Your task to perform on an android device: change notification settings in the gmail app Image 0: 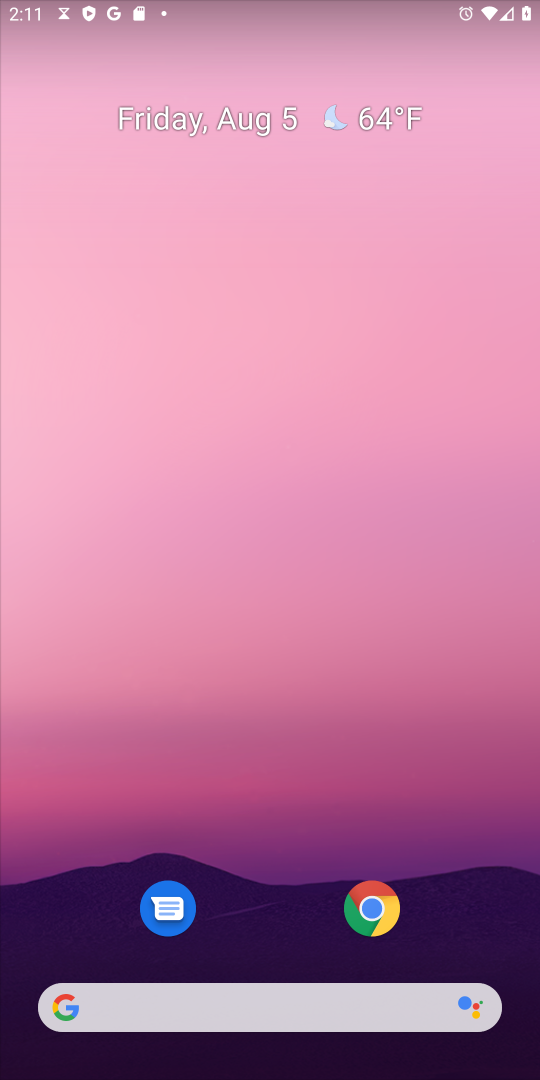
Step 0: press home button
Your task to perform on an android device: change notification settings in the gmail app Image 1: 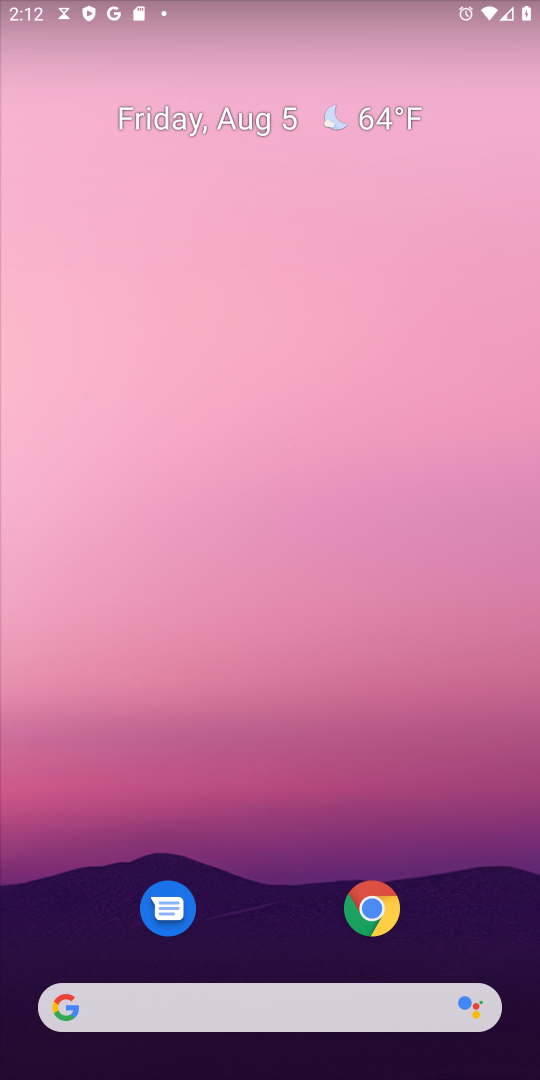
Step 1: drag from (316, 905) to (454, 120)
Your task to perform on an android device: change notification settings in the gmail app Image 2: 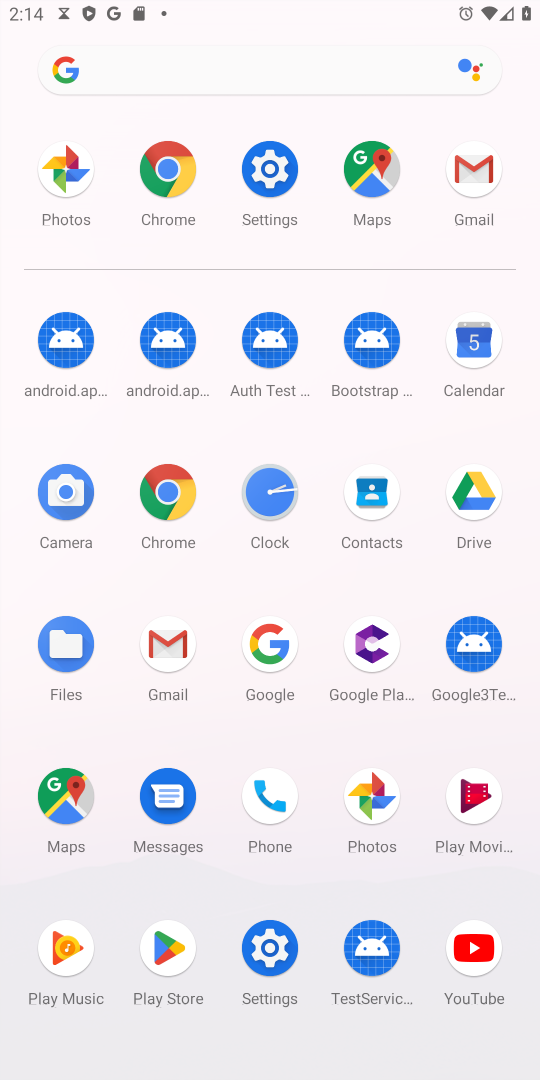
Step 2: click (186, 657)
Your task to perform on an android device: change notification settings in the gmail app Image 3: 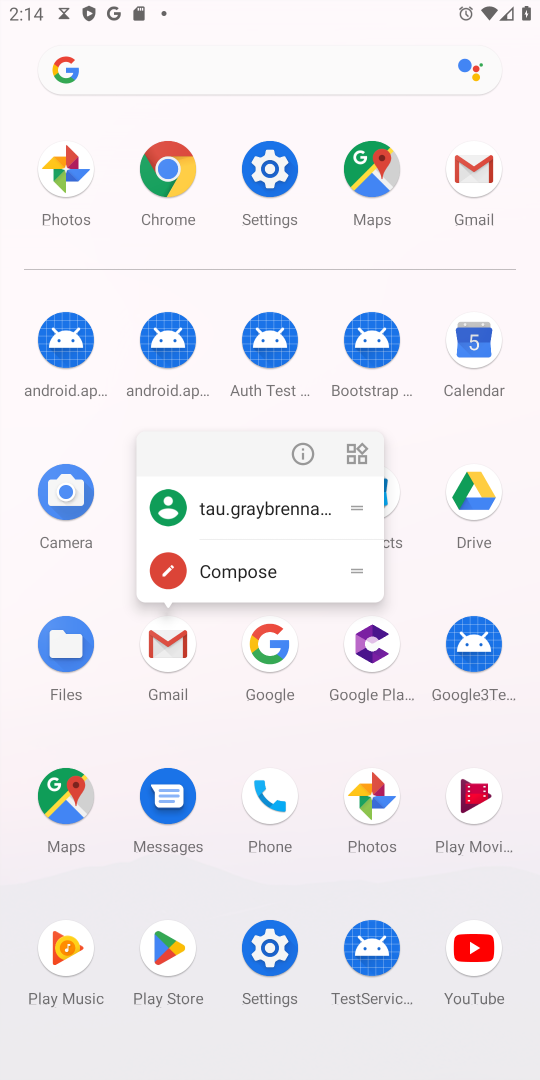
Step 3: click (302, 435)
Your task to perform on an android device: change notification settings in the gmail app Image 4: 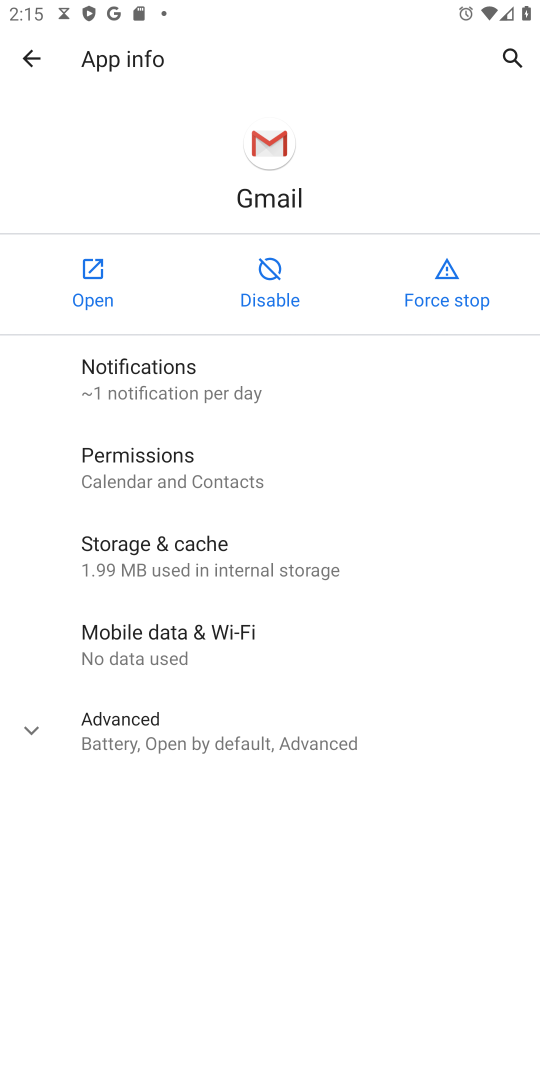
Step 4: click (165, 370)
Your task to perform on an android device: change notification settings in the gmail app Image 5: 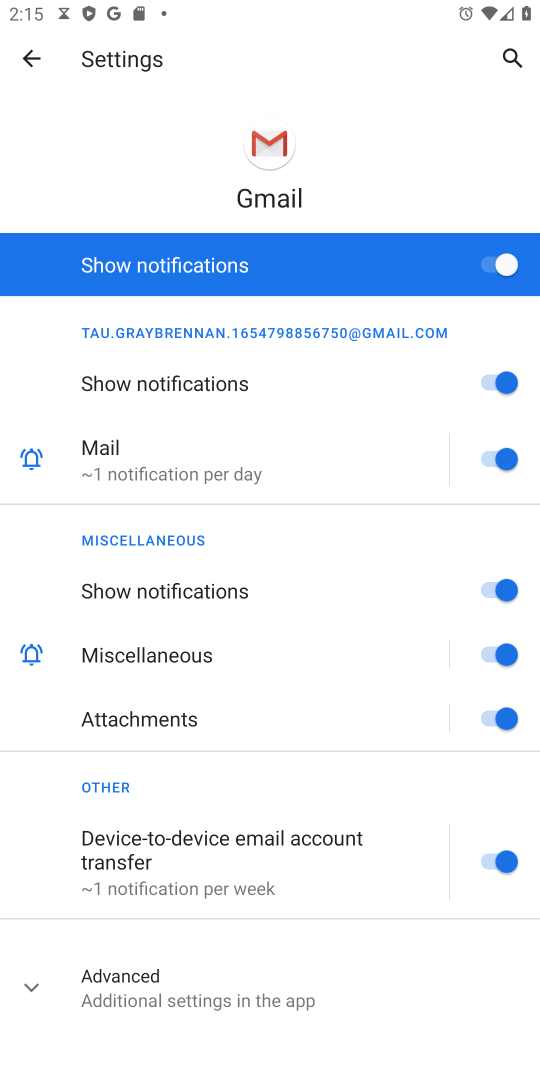
Step 5: click (329, 281)
Your task to perform on an android device: change notification settings in the gmail app Image 6: 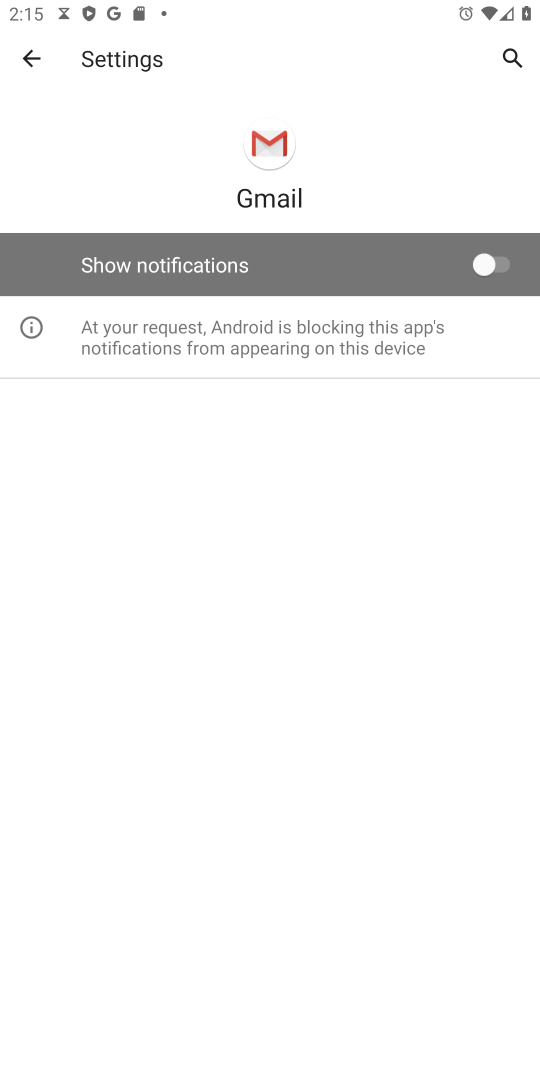
Step 6: task complete